Your task to perform on an android device: change timer sound Image 0: 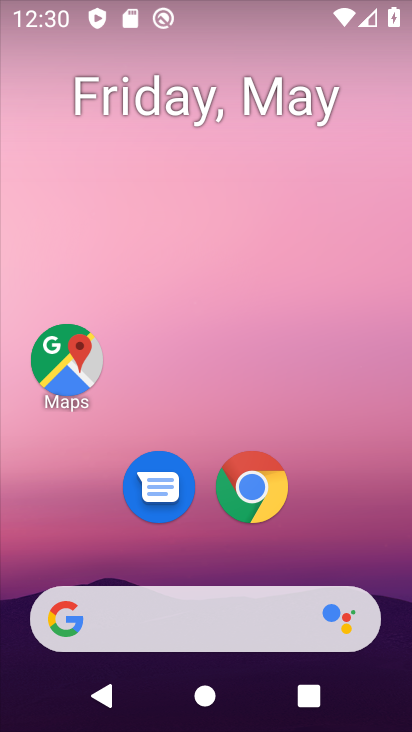
Step 0: drag from (261, 570) to (368, 59)
Your task to perform on an android device: change timer sound Image 1: 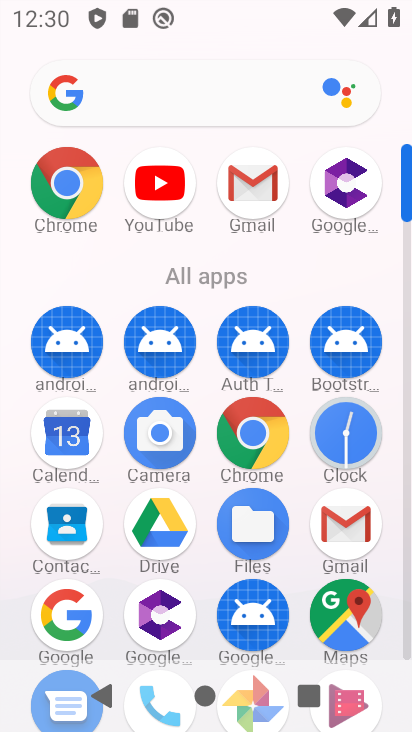
Step 1: click (359, 440)
Your task to perform on an android device: change timer sound Image 2: 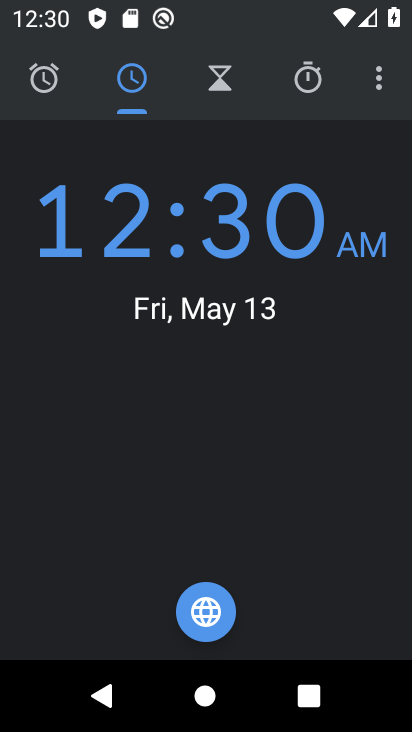
Step 2: click (379, 81)
Your task to perform on an android device: change timer sound Image 3: 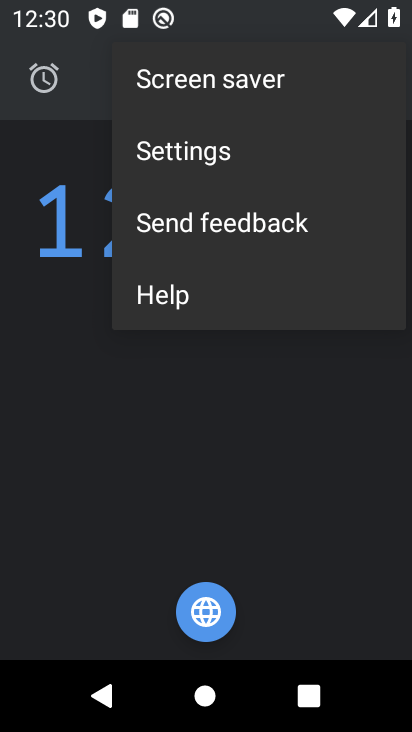
Step 3: click (357, 139)
Your task to perform on an android device: change timer sound Image 4: 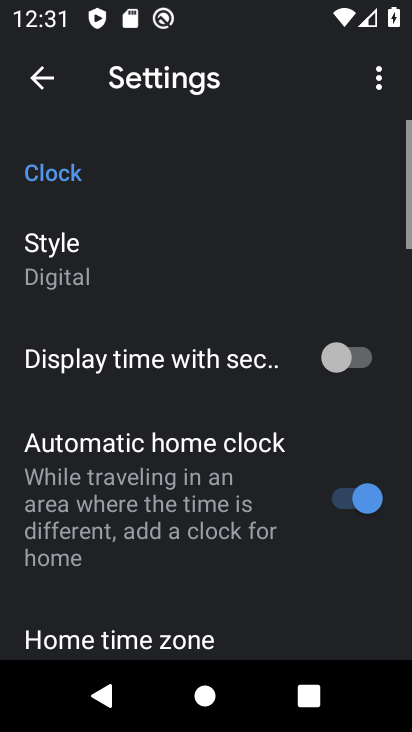
Step 4: drag from (213, 565) to (310, 174)
Your task to perform on an android device: change timer sound Image 5: 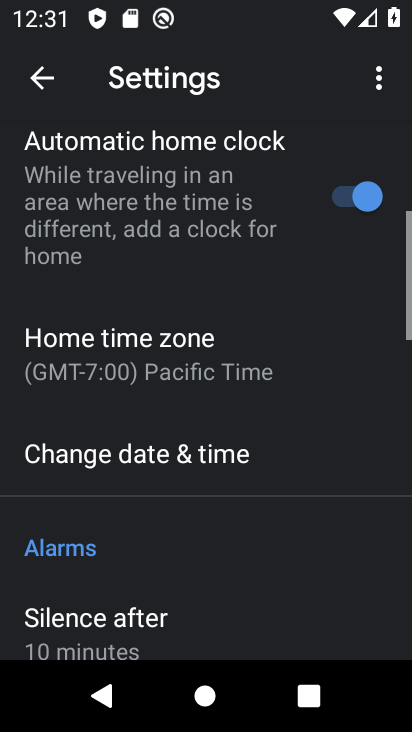
Step 5: drag from (222, 497) to (284, 264)
Your task to perform on an android device: change timer sound Image 6: 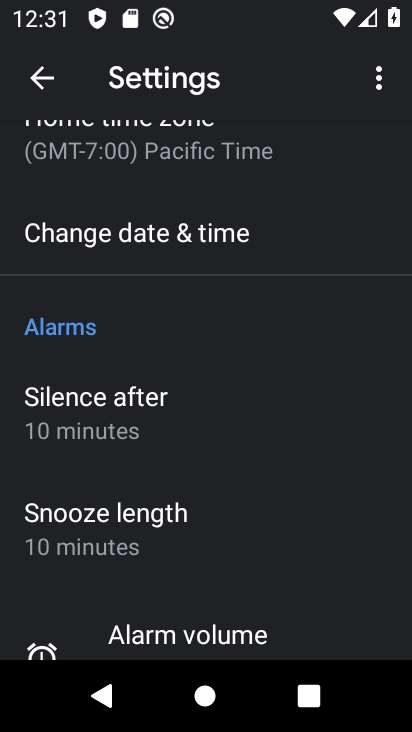
Step 6: drag from (212, 557) to (269, 233)
Your task to perform on an android device: change timer sound Image 7: 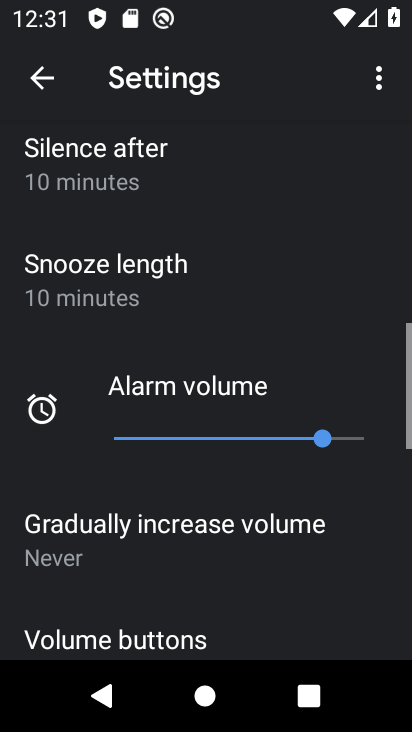
Step 7: drag from (180, 545) to (223, 641)
Your task to perform on an android device: change timer sound Image 8: 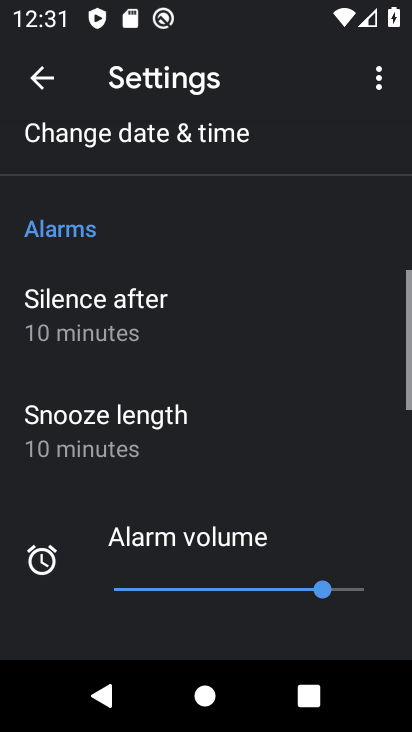
Step 8: drag from (227, 290) to (318, 135)
Your task to perform on an android device: change timer sound Image 9: 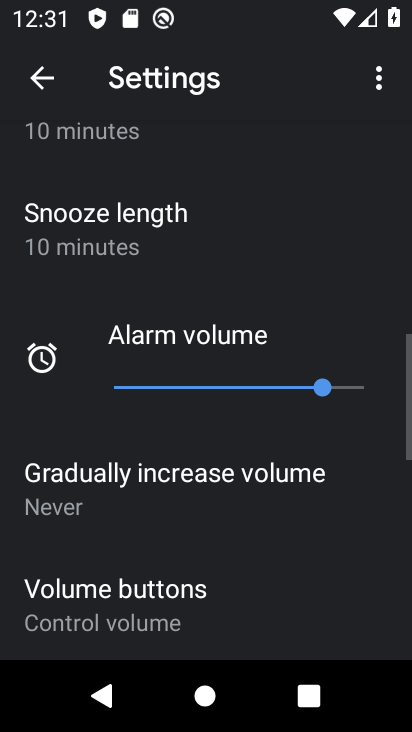
Step 9: drag from (247, 544) to (344, 116)
Your task to perform on an android device: change timer sound Image 10: 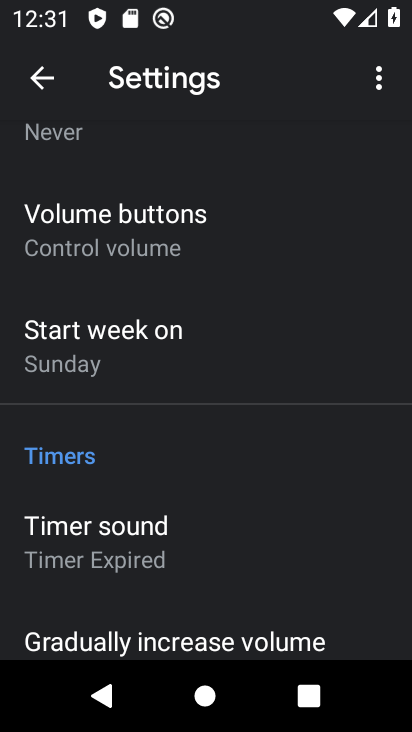
Step 10: click (226, 557)
Your task to perform on an android device: change timer sound Image 11: 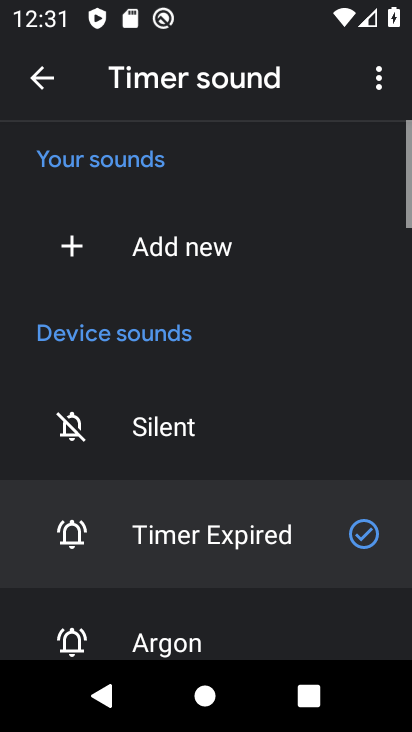
Step 11: drag from (243, 578) to (353, 205)
Your task to perform on an android device: change timer sound Image 12: 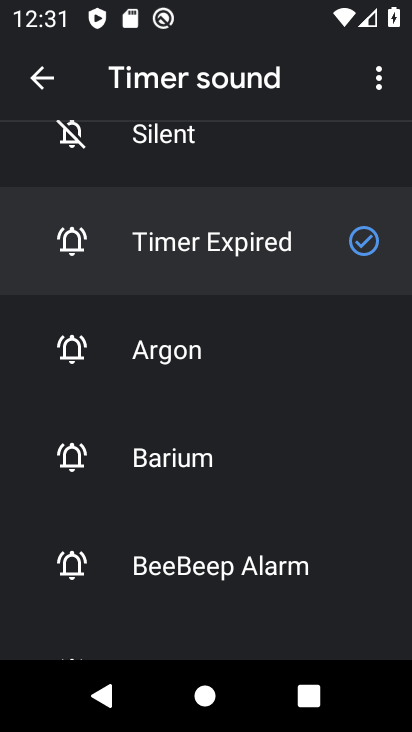
Step 12: drag from (255, 557) to (293, 329)
Your task to perform on an android device: change timer sound Image 13: 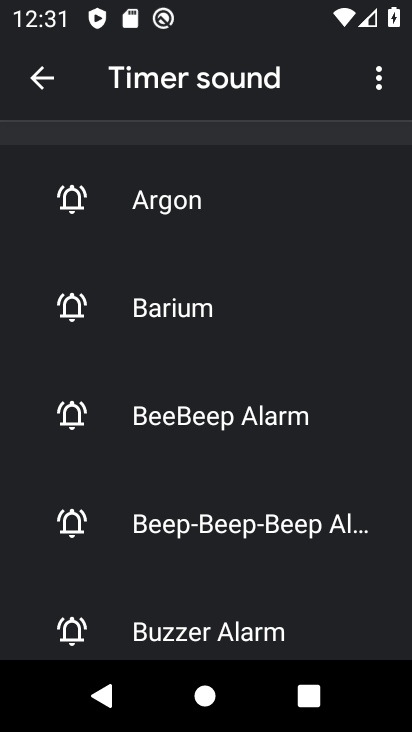
Step 13: click (253, 540)
Your task to perform on an android device: change timer sound Image 14: 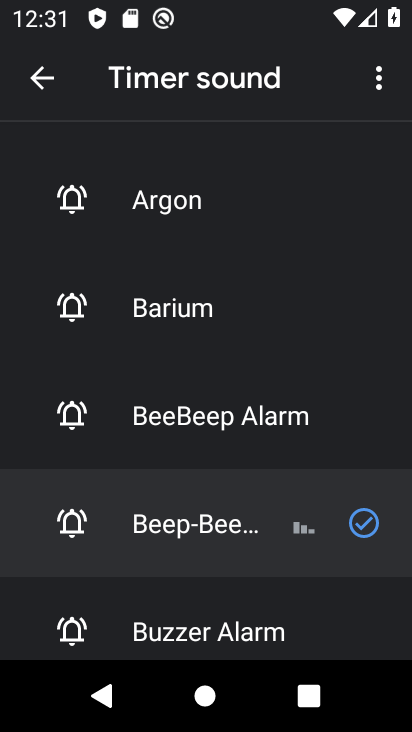
Step 14: task complete